Your task to perform on an android device: Open the Play Movies app and select the watchlist tab. Image 0: 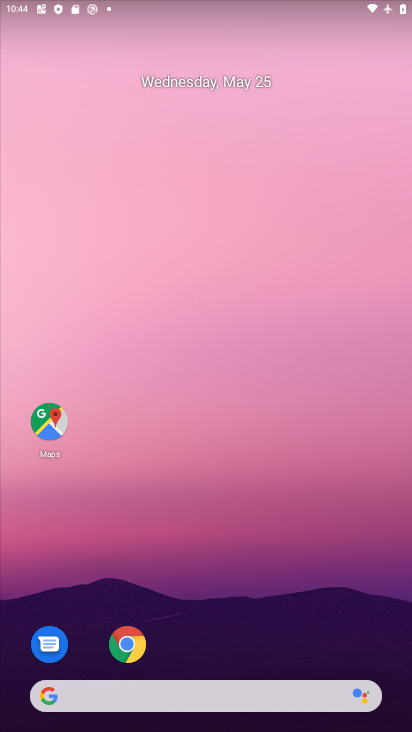
Step 0: drag from (223, 647) to (246, 158)
Your task to perform on an android device: Open the Play Movies app and select the watchlist tab. Image 1: 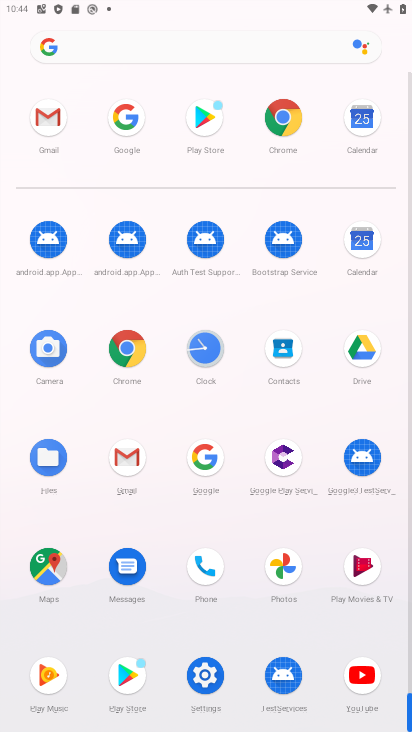
Step 1: drag from (247, 562) to (263, 254)
Your task to perform on an android device: Open the Play Movies app and select the watchlist tab. Image 2: 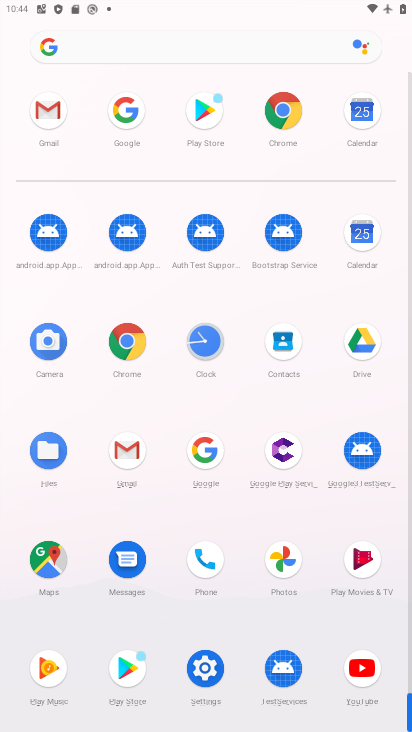
Step 2: click (352, 571)
Your task to perform on an android device: Open the Play Movies app and select the watchlist tab. Image 3: 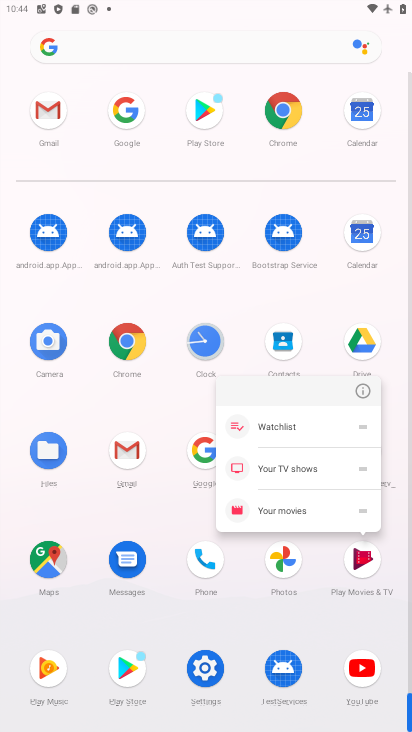
Step 3: click (367, 566)
Your task to perform on an android device: Open the Play Movies app and select the watchlist tab. Image 4: 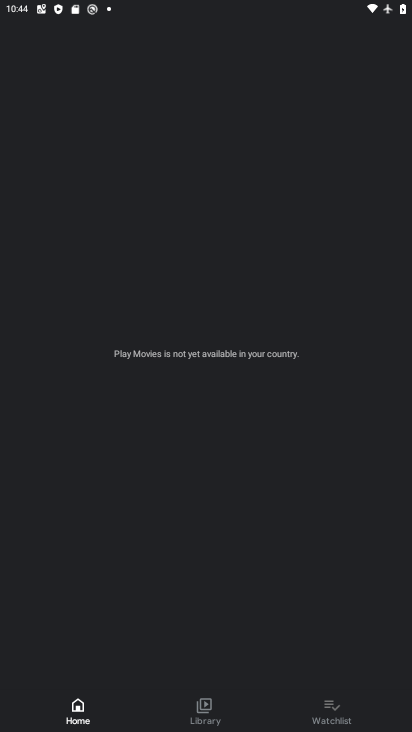
Step 4: click (334, 707)
Your task to perform on an android device: Open the Play Movies app and select the watchlist tab. Image 5: 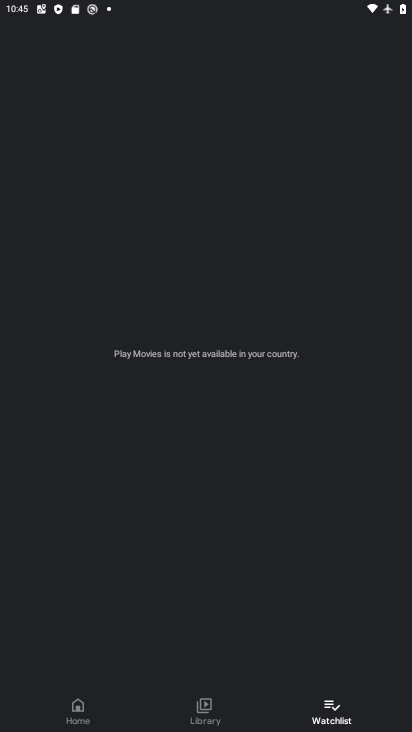
Step 5: task complete